Your task to perform on an android device: Go to ESPN.com Image 0: 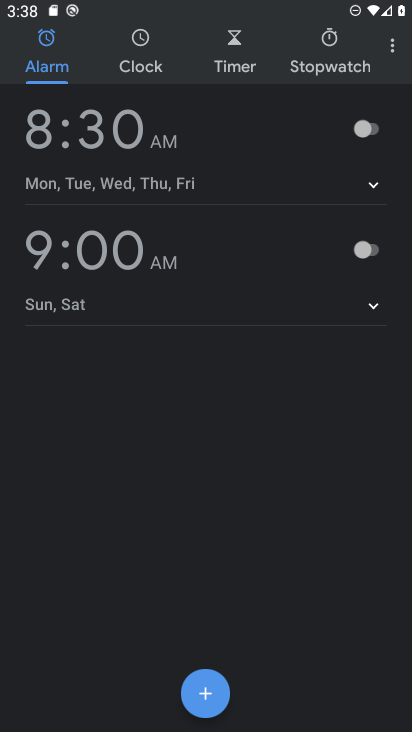
Step 0: press back button
Your task to perform on an android device: Go to ESPN.com Image 1: 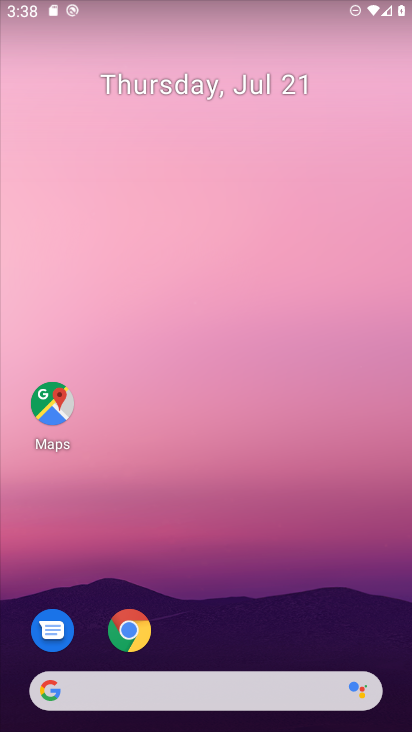
Step 1: click (126, 633)
Your task to perform on an android device: Go to ESPN.com Image 2: 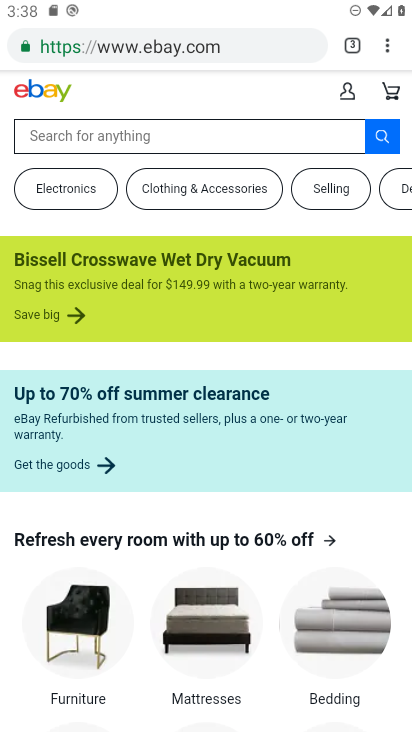
Step 2: click (349, 46)
Your task to perform on an android device: Go to ESPN.com Image 3: 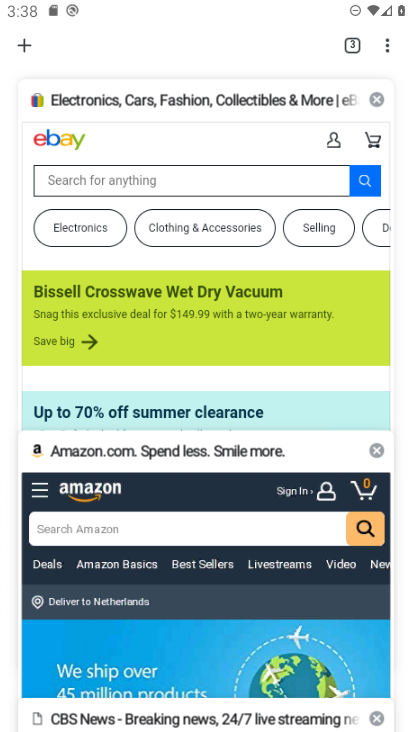
Step 3: click (16, 38)
Your task to perform on an android device: Go to ESPN.com Image 4: 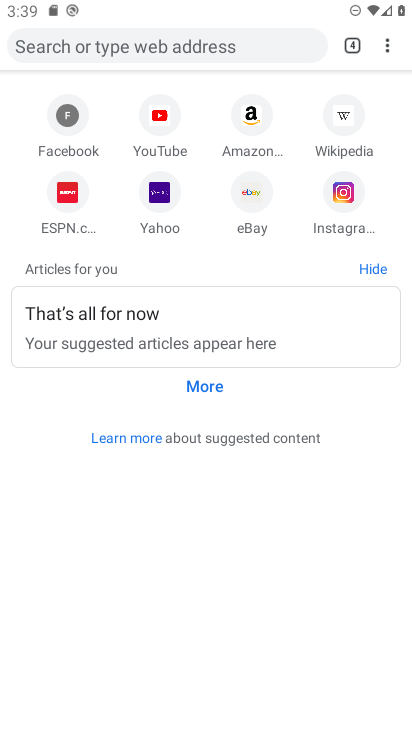
Step 4: click (74, 194)
Your task to perform on an android device: Go to ESPN.com Image 5: 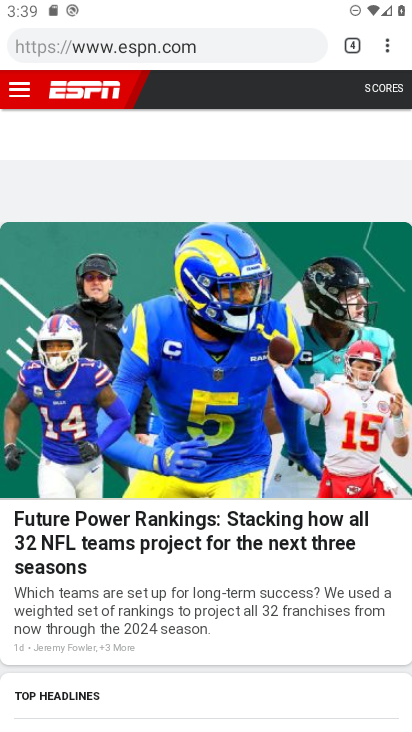
Step 5: task complete